Your task to perform on an android device: install app "DoorDash - Dasher" Image 0: 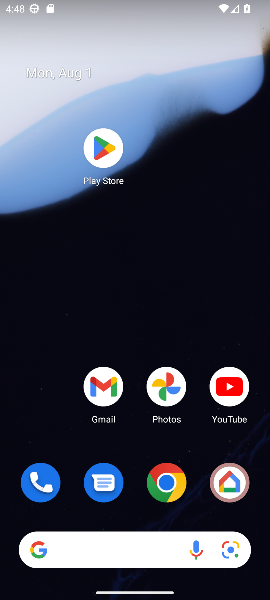
Step 0: click (101, 152)
Your task to perform on an android device: install app "DoorDash - Dasher" Image 1: 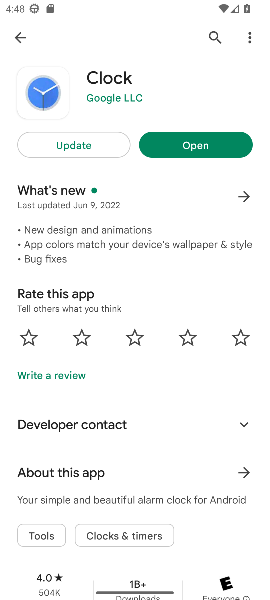
Step 1: press home button
Your task to perform on an android device: install app "DoorDash - Dasher" Image 2: 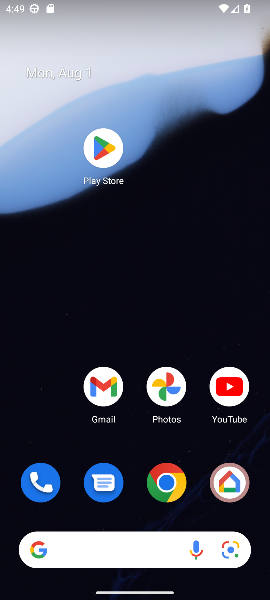
Step 2: click (105, 148)
Your task to perform on an android device: install app "DoorDash - Dasher" Image 3: 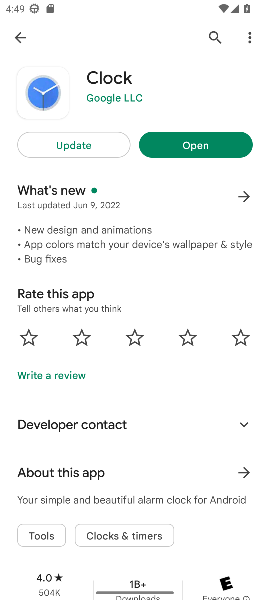
Step 3: click (209, 33)
Your task to perform on an android device: install app "DoorDash - Dasher" Image 4: 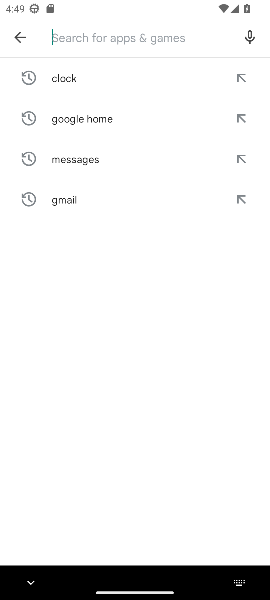
Step 4: type "DoorDash - Dasher"
Your task to perform on an android device: install app "DoorDash - Dasher" Image 5: 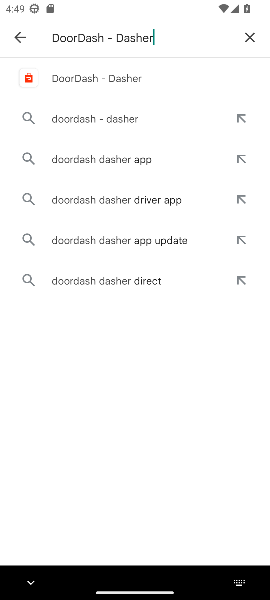
Step 5: click (79, 82)
Your task to perform on an android device: install app "DoorDash - Dasher" Image 6: 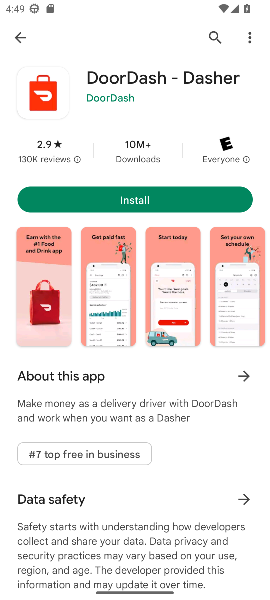
Step 6: click (149, 204)
Your task to perform on an android device: install app "DoorDash - Dasher" Image 7: 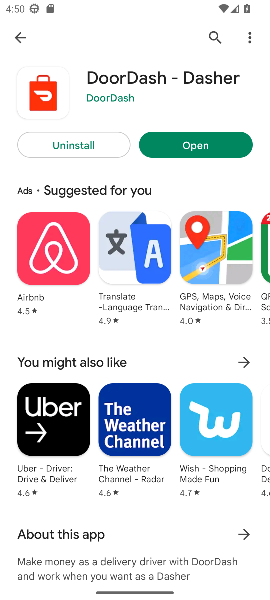
Step 7: task complete